Your task to perform on an android device: Open calendar and show me the first week of next month Image 0: 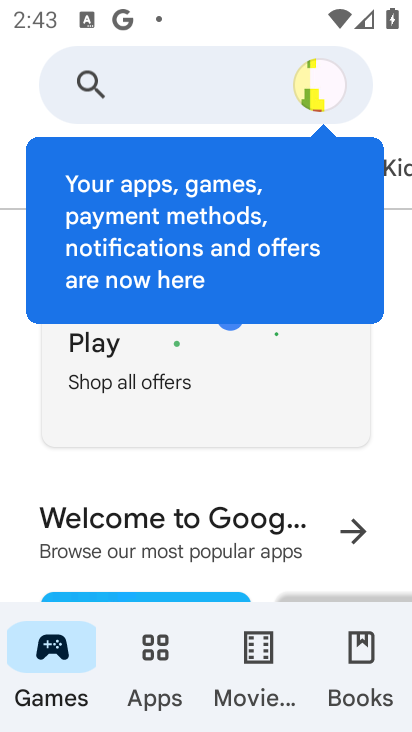
Step 0: press home button
Your task to perform on an android device: Open calendar and show me the first week of next month Image 1: 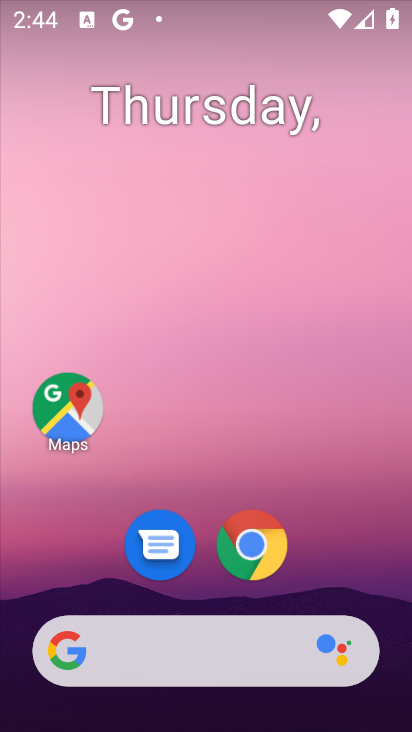
Step 1: drag from (187, 526) to (187, 148)
Your task to perform on an android device: Open calendar and show me the first week of next month Image 2: 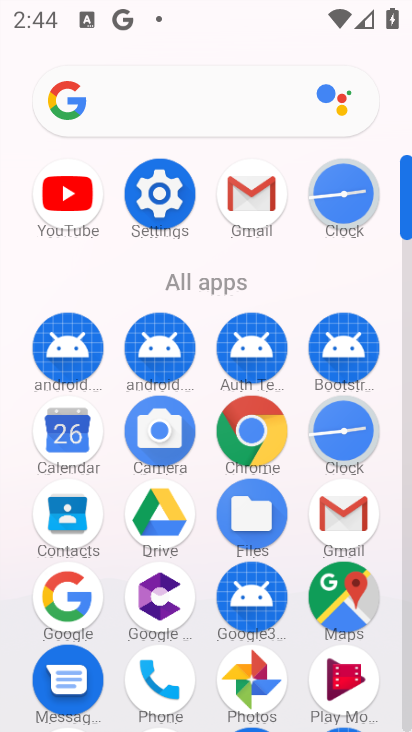
Step 2: click (71, 449)
Your task to perform on an android device: Open calendar and show me the first week of next month Image 3: 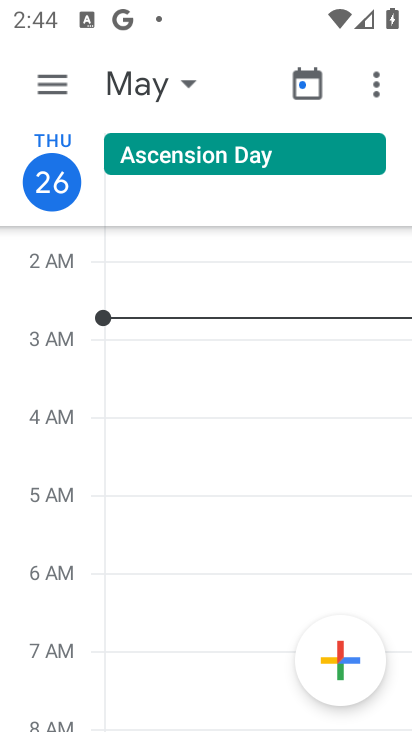
Step 3: click (150, 95)
Your task to perform on an android device: Open calendar and show me the first week of next month Image 4: 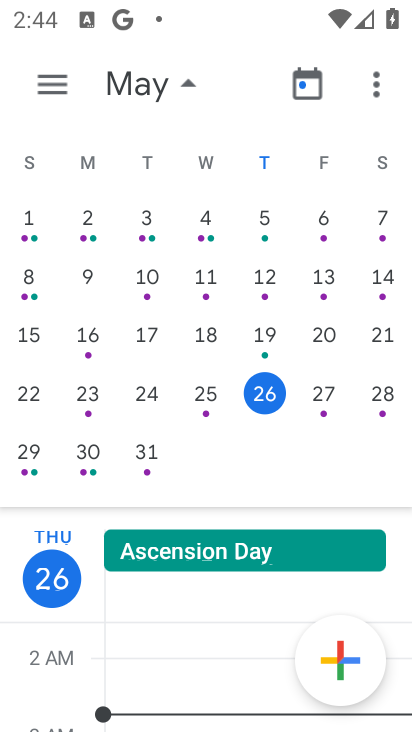
Step 4: drag from (374, 265) to (12, 313)
Your task to perform on an android device: Open calendar and show me the first week of next month Image 5: 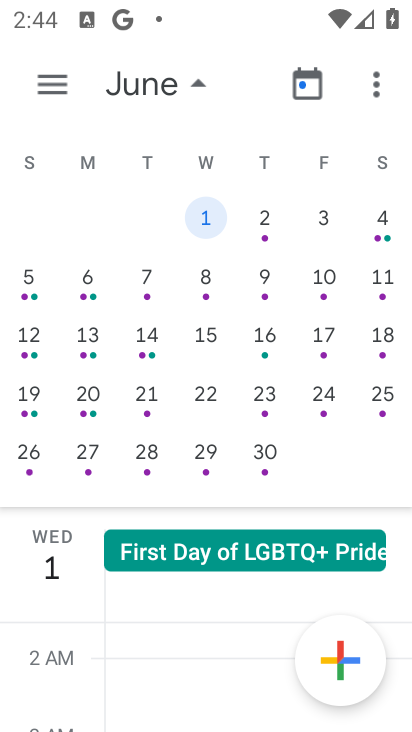
Step 5: click (197, 218)
Your task to perform on an android device: Open calendar and show me the first week of next month Image 6: 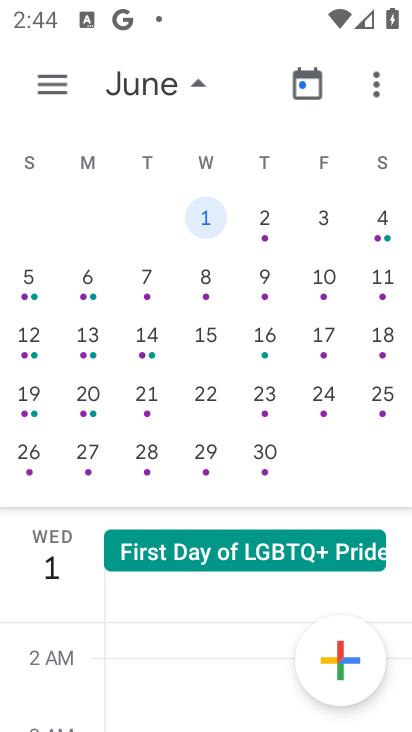
Step 6: task complete